Your task to perform on an android device: Open Google Image 0: 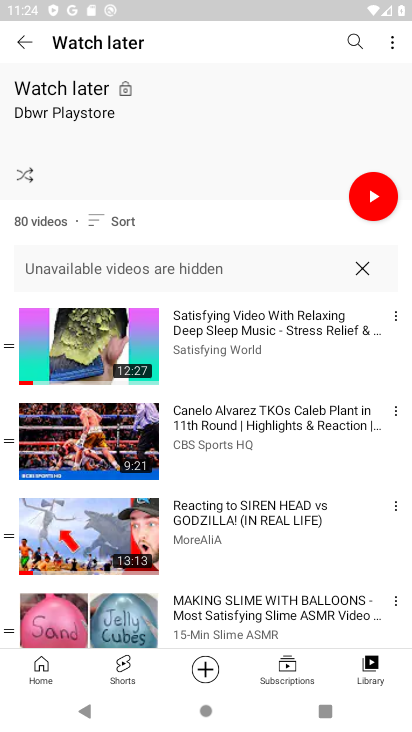
Step 0: press home button
Your task to perform on an android device: Open Google Image 1: 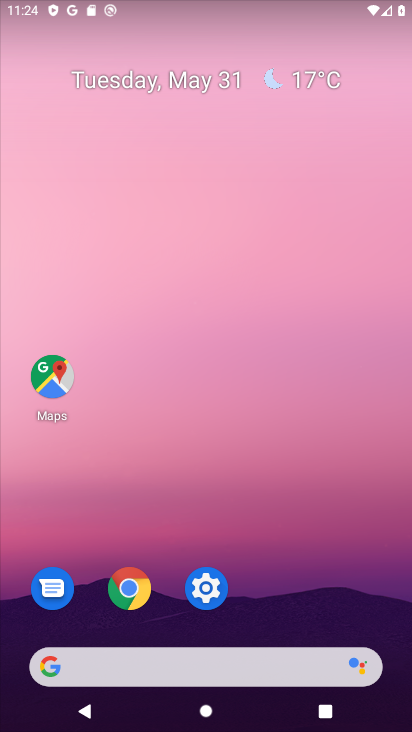
Step 1: click (51, 668)
Your task to perform on an android device: Open Google Image 2: 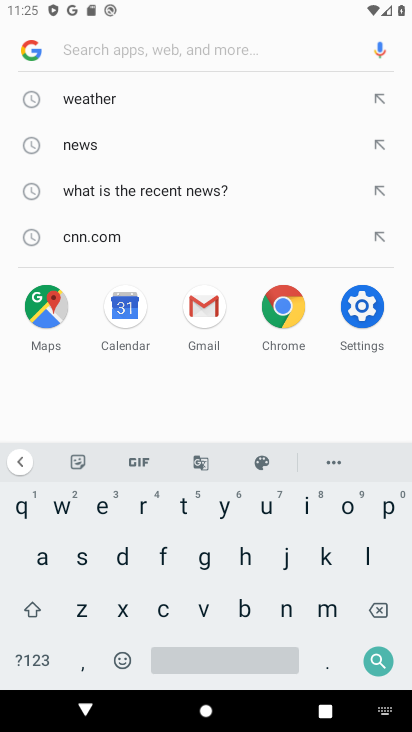
Step 2: click (37, 59)
Your task to perform on an android device: Open Google Image 3: 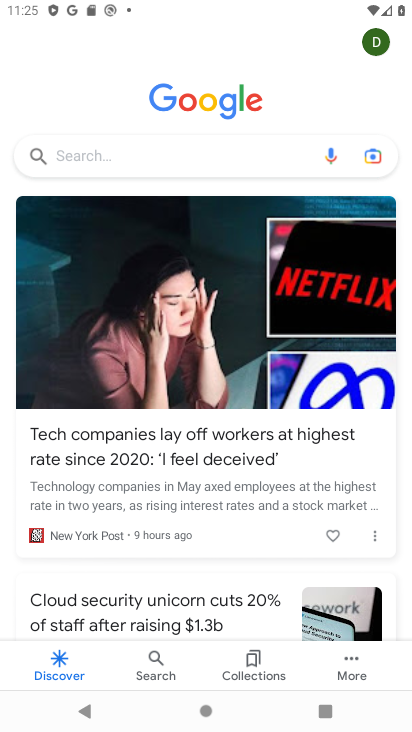
Step 3: task complete